Your task to perform on an android device: star an email in the gmail app Image 0: 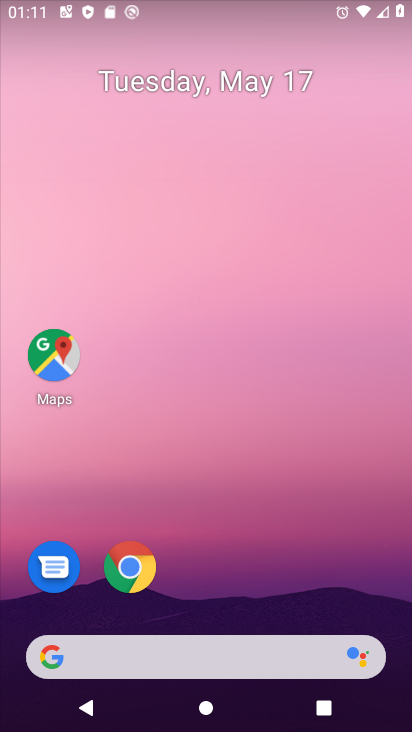
Step 0: click (278, 506)
Your task to perform on an android device: star an email in the gmail app Image 1: 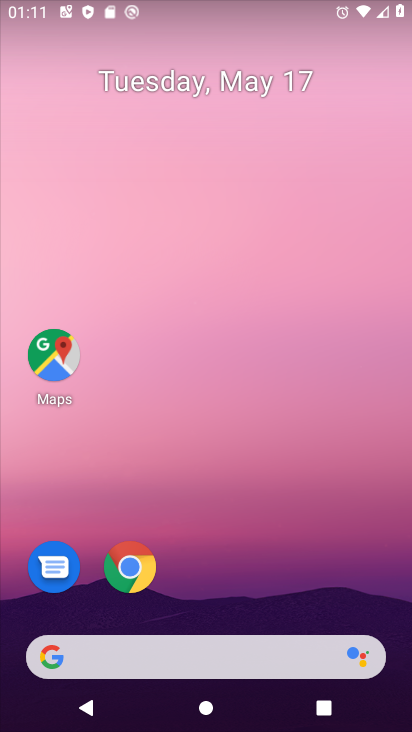
Step 1: drag from (278, 506) to (239, 252)
Your task to perform on an android device: star an email in the gmail app Image 2: 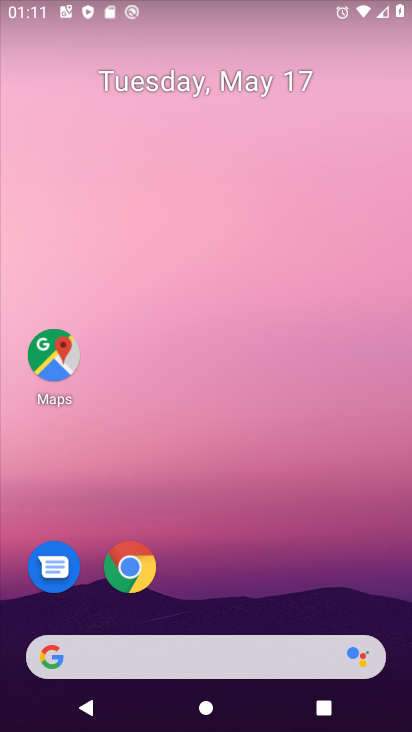
Step 2: drag from (228, 479) to (155, 46)
Your task to perform on an android device: star an email in the gmail app Image 3: 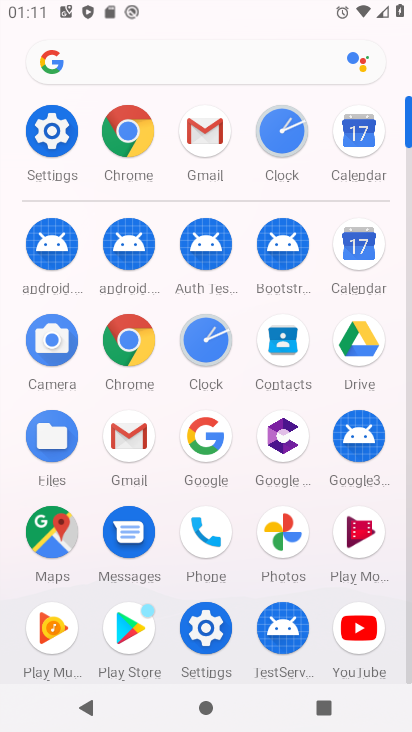
Step 3: click (203, 141)
Your task to perform on an android device: star an email in the gmail app Image 4: 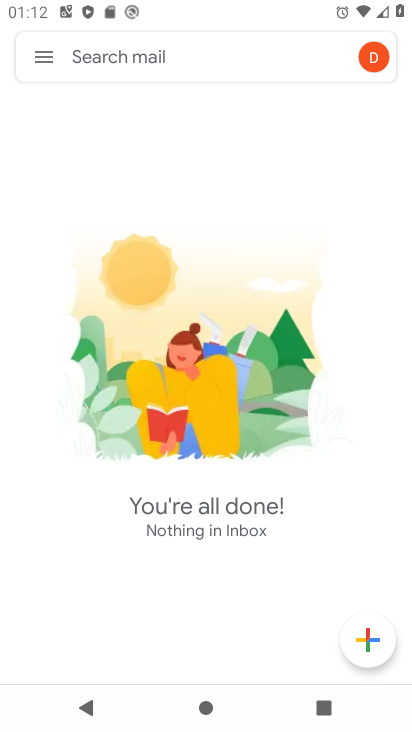
Step 4: click (37, 56)
Your task to perform on an android device: star an email in the gmail app Image 5: 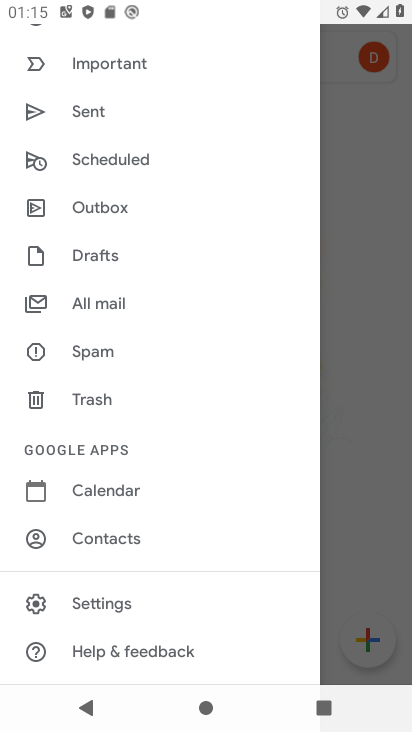
Step 5: click (102, 296)
Your task to perform on an android device: star an email in the gmail app Image 6: 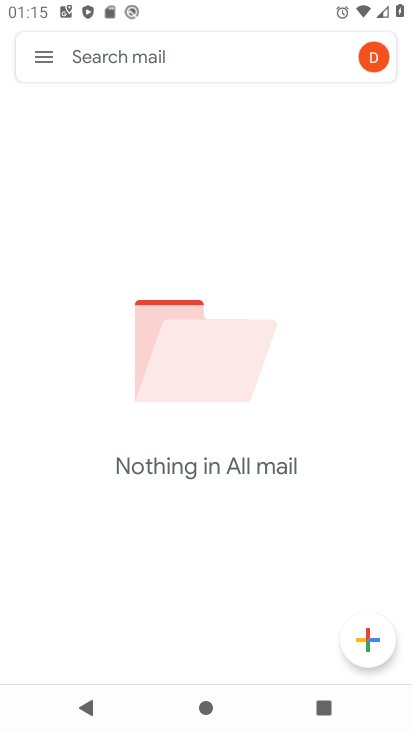
Step 6: task complete